Your task to perform on an android device: toggle show notifications on the lock screen Image 0: 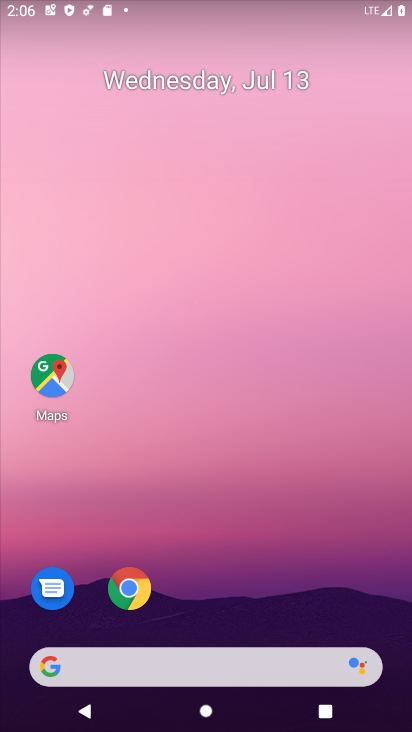
Step 0: click (223, 159)
Your task to perform on an android device: toggle show notifications on the lock screen Image 1: 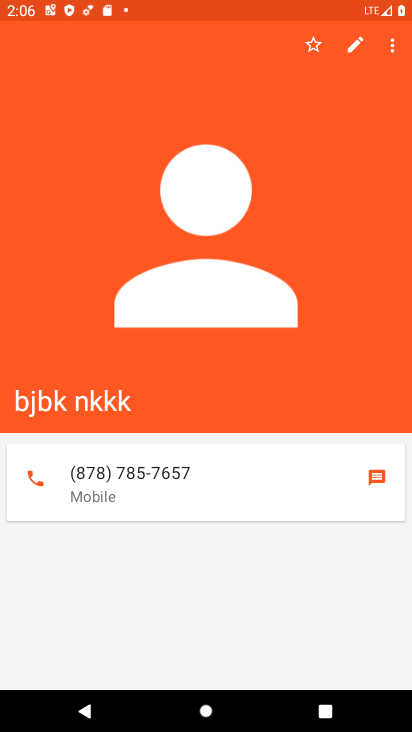
Step 1: press home button
Your task to perform on an android device: toggle show notifications on the lock screen Image 2: 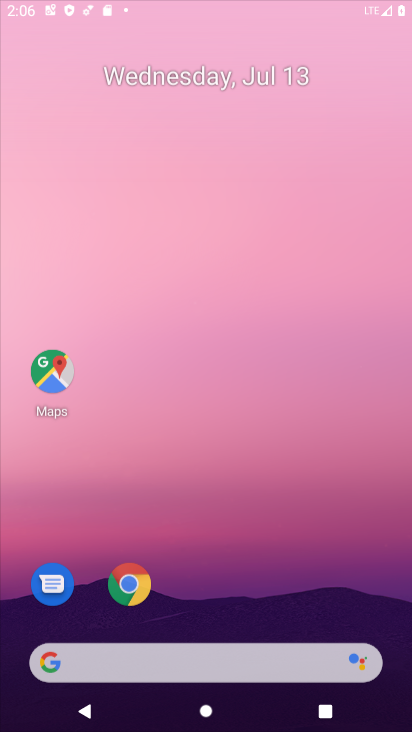
Step 2: drag from (209, 541) to (243, 348)
Your task to perform on an android device: toggle show notifications on the lock screen Image 3: 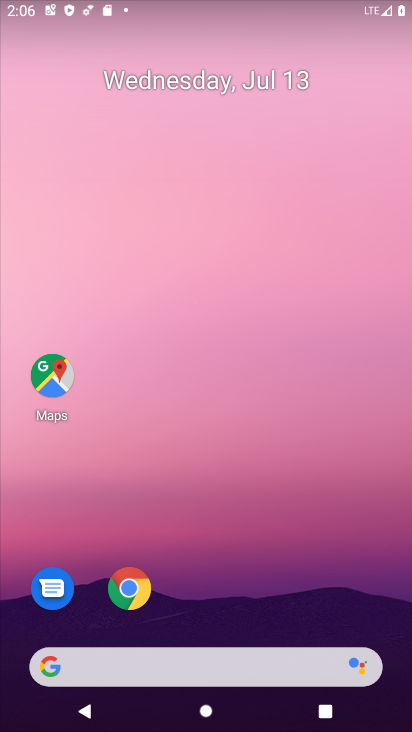
Step 3: drag from (168, 560) to (170, 389)
Your task to perform on an android device: toggle show notifications on the lock screen Image 4: 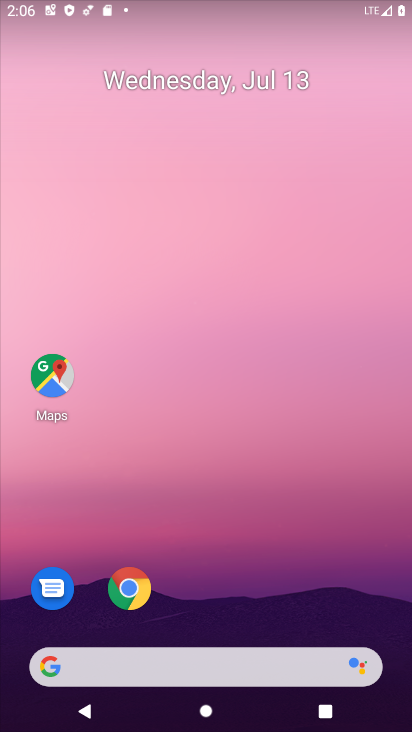
Step 4: drag from (179, 589) to (229, 258)
Your task to perform on an android device: toggle show notifications on the lock screen Image 5: 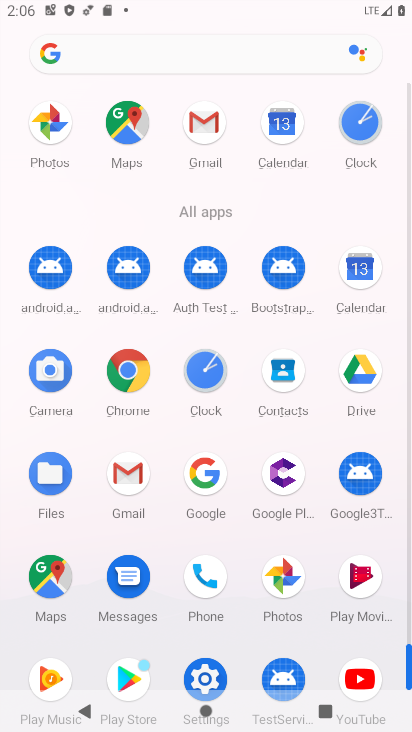
Step 5: click (206, 659)
Your task to perform on an android device: toggle show notifications on the lock screen Image 6: 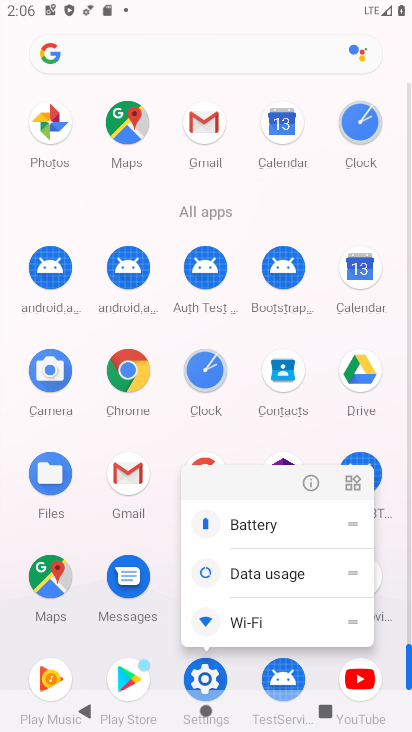
Step 6: click (303, 482)
Your task to perform on an android device: toggle show notifications on the lock screen Image 7: 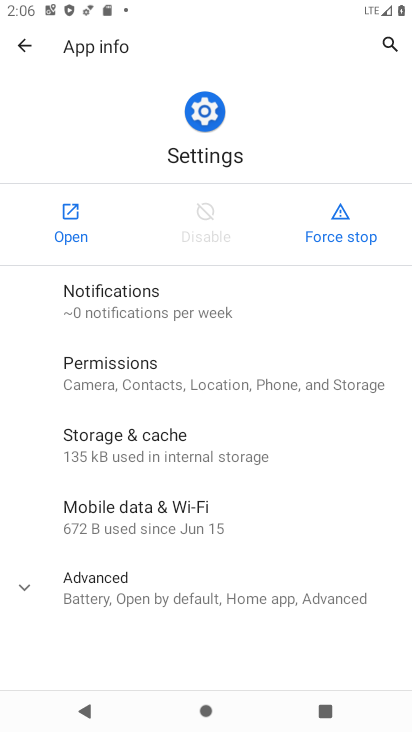
Step 7: click (83, 238)
Your task to perform on an android device: toggle show notifications on the lock screen Image 8: 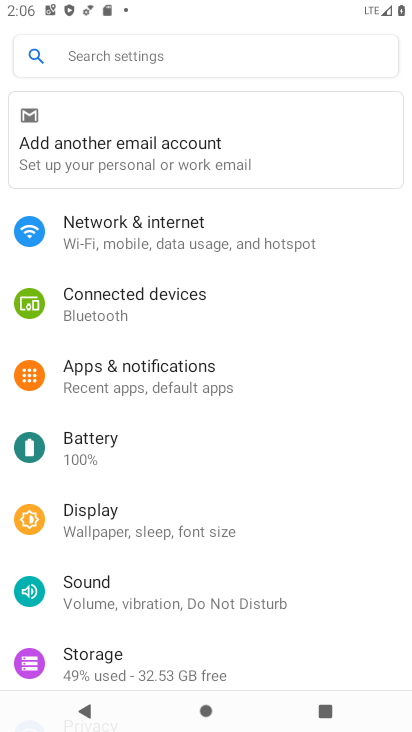
Step 8: click (134, 385)
Your task to perform on an android device: toggle show notifications on the lock screen Image 9: 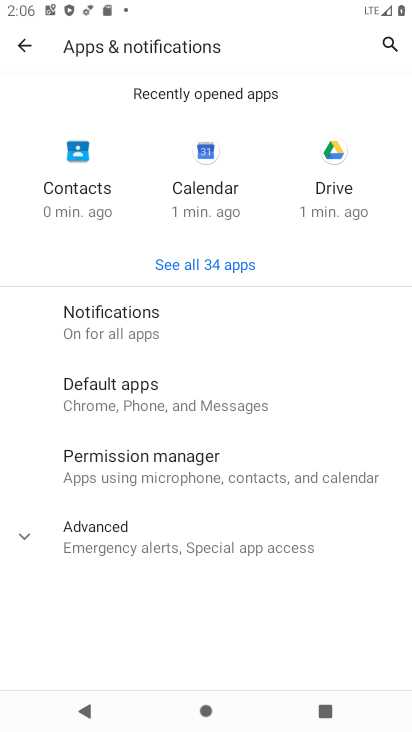
Step 9: click (100, 319)
Your task to perform on an android device: toggle show notifications on the lock screen Image 10: 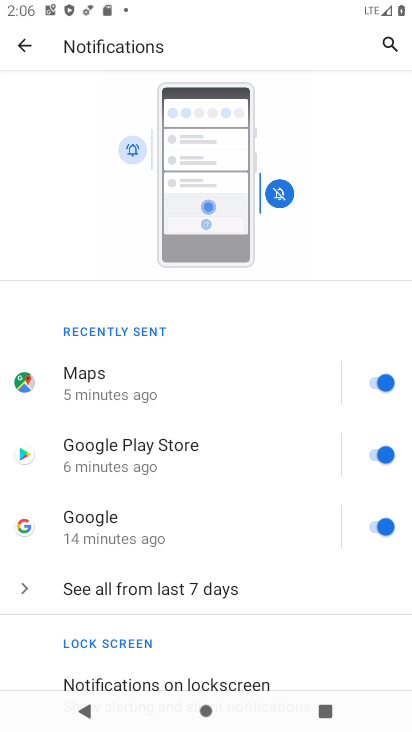
Step 10: click (184, 677)
Your task to perform on an android device: toggle show notifications on the lock screen Image 11: 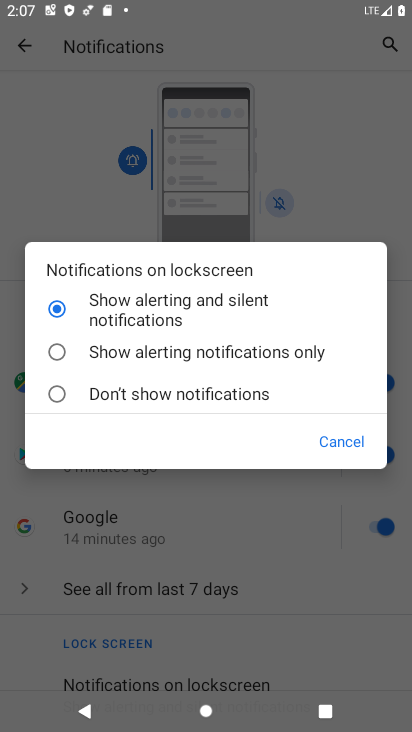
Step 11: click (120, 349)
Your task to perform on an android device: toggle show notifications on the lock screen Image 12: 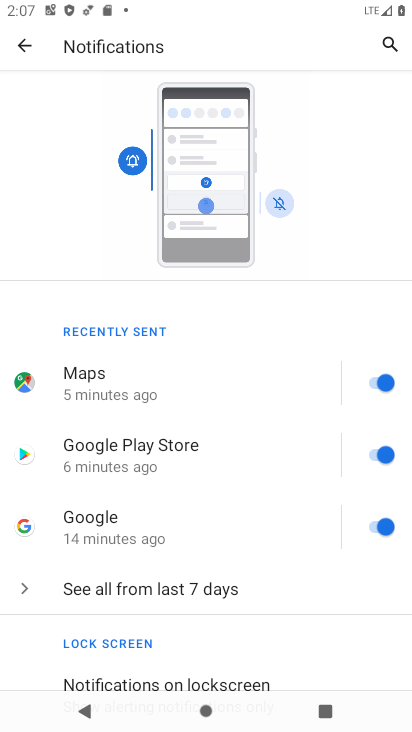
Step 12: task complete